Your task to perform on an android device: What is the recent news? Image 0: 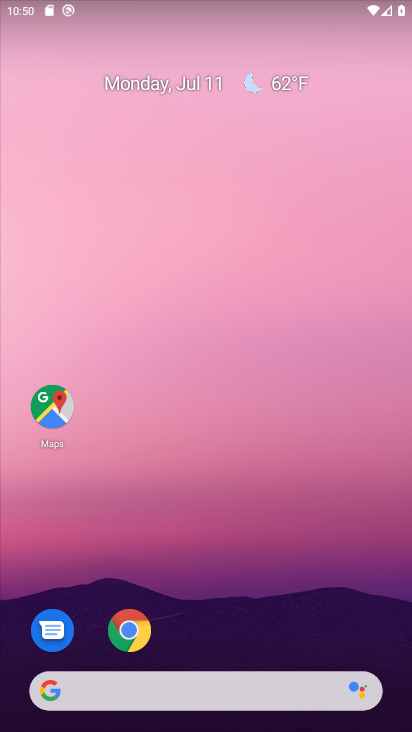
Step 0: click (216, 681)
Your task to perform on an android device: What is the recent news? Image 1: 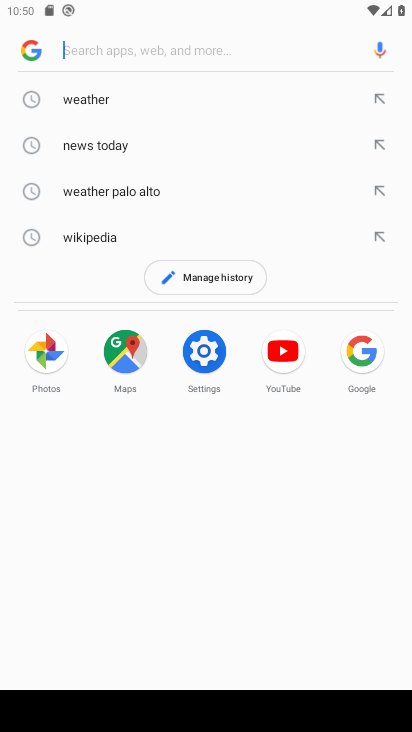
Step 1: click (87, 148)
Your task to perform on an android device: What is the recent news? Image 2: 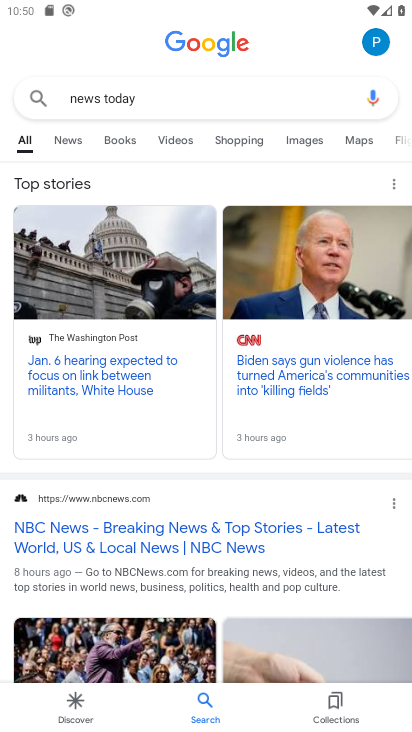
Step 2: click (68, 136)
Your task to perform on an android device: What is the recent news? Image 3: 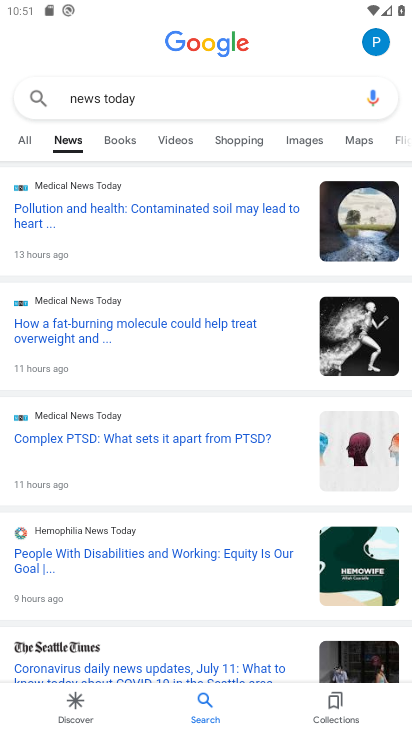
Step 3: task complete